Your task to perform on an android device: snooze an email in the gmail app Image 0: 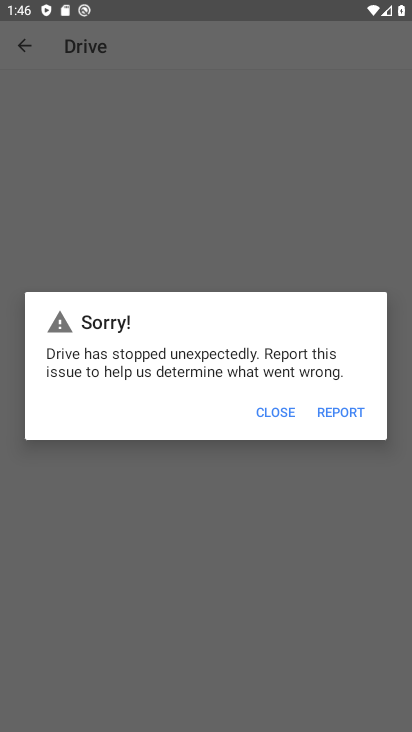
Step 0: press home button
Your task to perform on an android device: snooze an email in the gmail app Image 1: 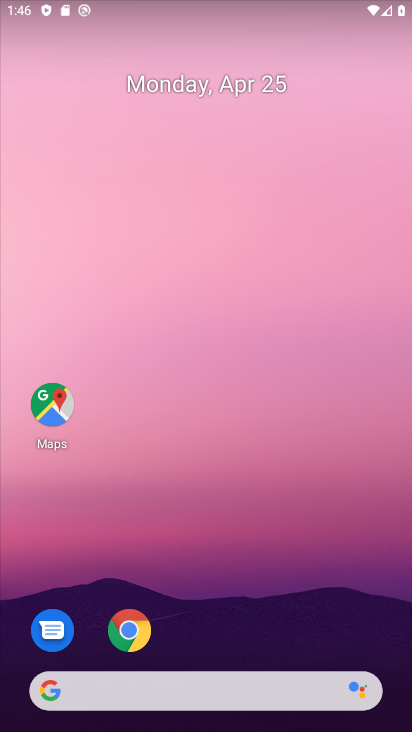
Step 1: drag from (201, 628) to (196, 28)
Your task to perform on an android device: snooze an email in the gmail app Image 2: 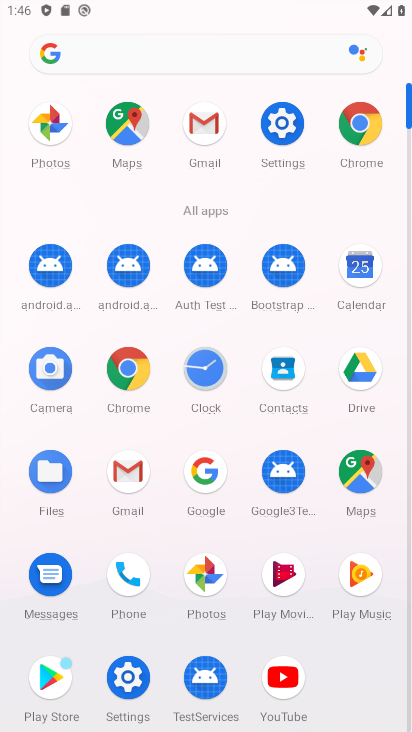
Step 2: click (133, 469)
Your task to perform on an android device: snooze an email in the gmail app Image 3: 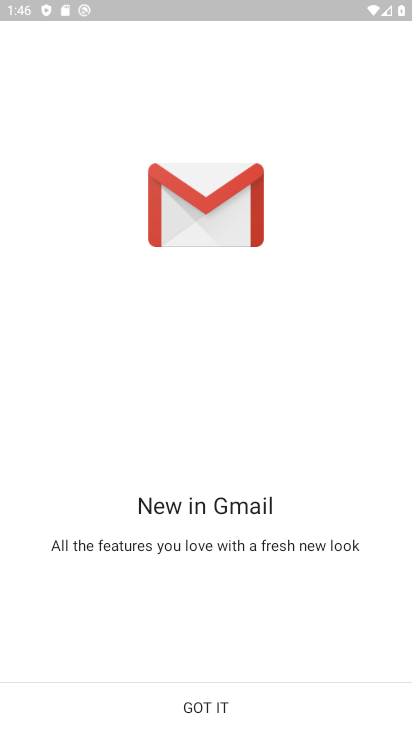
Step 3: click (185, 714)
Your task to perform on an android device: snooze an email in the gmail app Image 4: 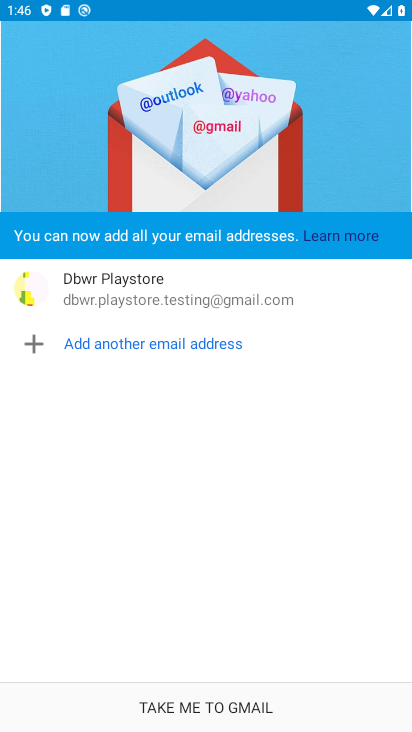
Step 4: click (185, 714)
Your task to perform on an android device: snooze an email in the gmail app Image 5: 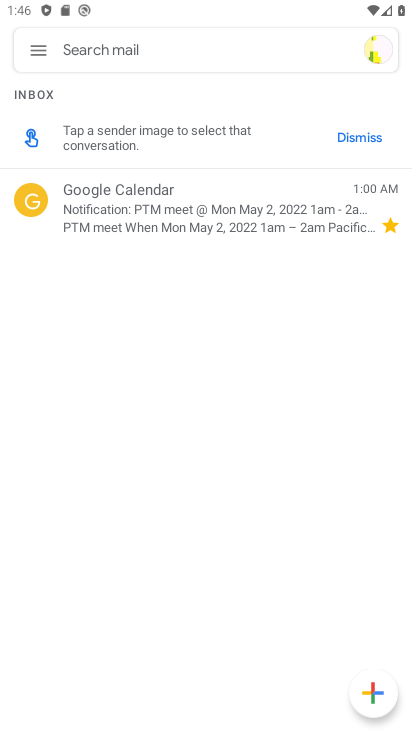
Step 5: drag from (32, 193) to (110, 423)
Your task to perform on an android device: snooze an email in the gmail app Image 6: 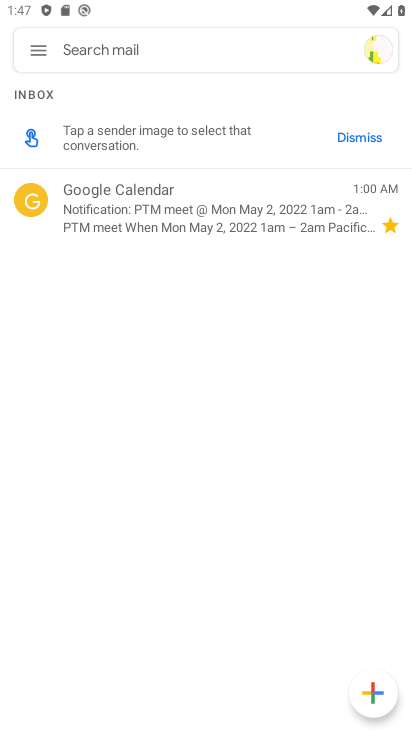
Step 6: click (35, 197)
Your task to perform on an android device: snooze an email in the gmail app Image 7: 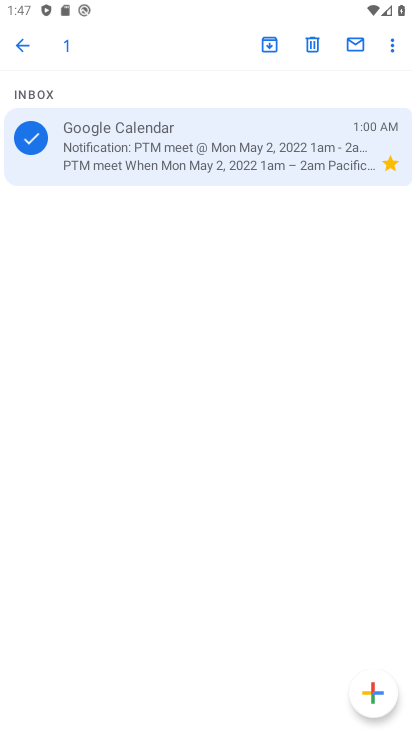
Step 7: click (395, 55)
Your task to perform on an android device: snooze an email in the gmail app Image 8: 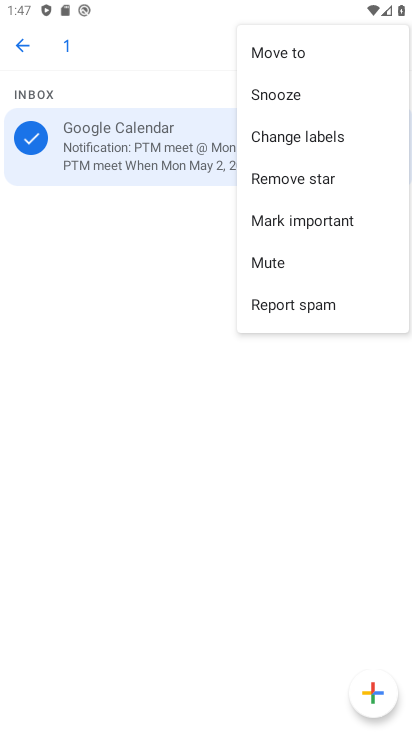
Step 8: click (268, 90)
Your task to perform on an android device: snooze an email in the gmail app Image 9: 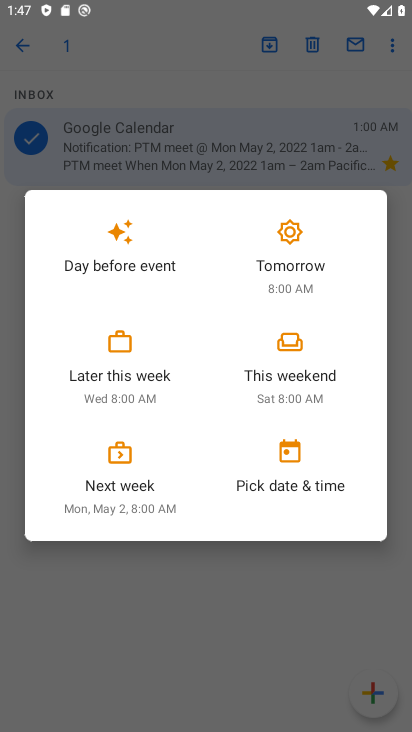
Step 9: click (116, 333)
Your task to perform on an android device: snooze an email in the gmail app Image 10: 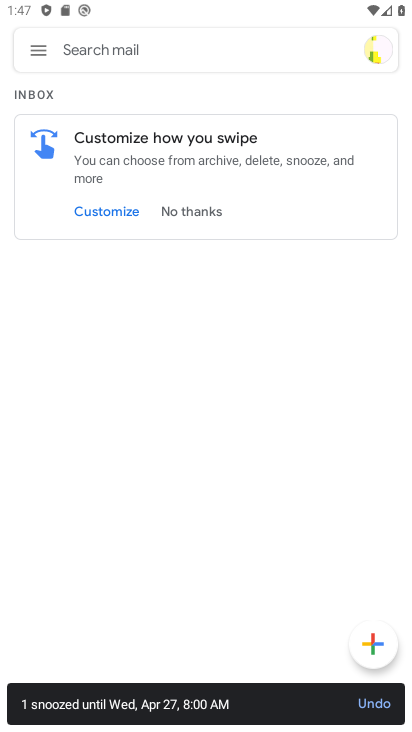
Step 10: task complete